Your task to perform on an android device: move an email to a new category in the gmail app Image 0: 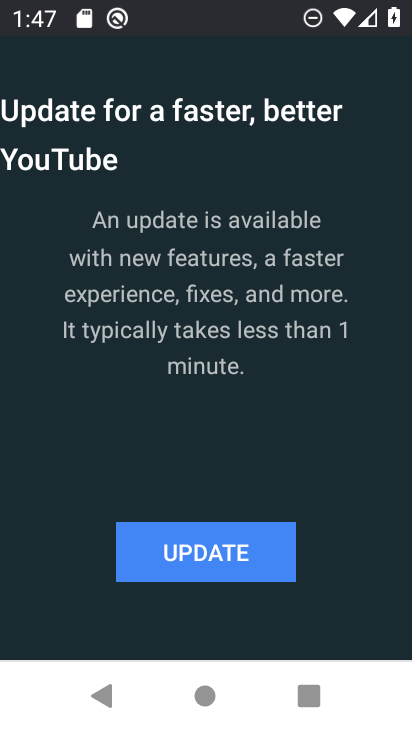
Step 0: press home button
Your task to perform on an android device: move an email to a new category in the gmail app Image 1: 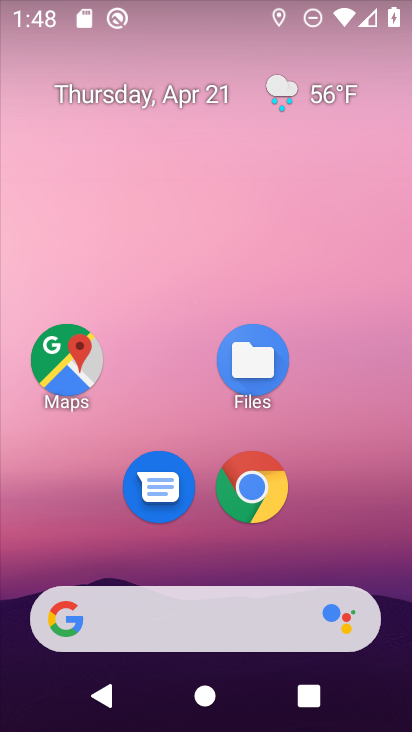
Step 1: drag from (369, 521) to (359, 112)
Your task to perform on an android device: move an email to a new category in the gmail app Image 2: 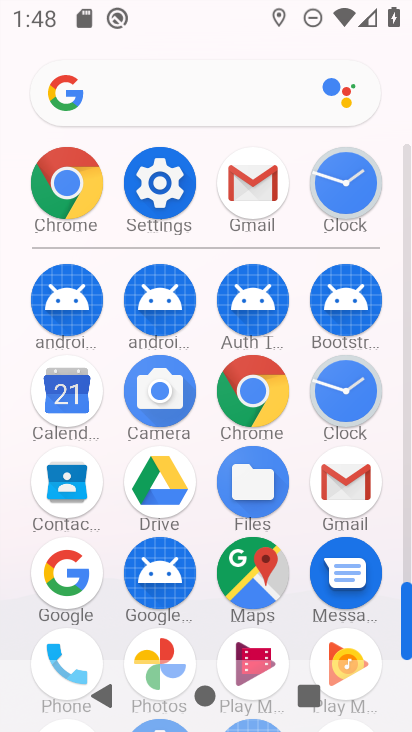
Step 2: click (346, 488)
Your task to perform on an android device: move an email to a new category in the gmail app Image 3: 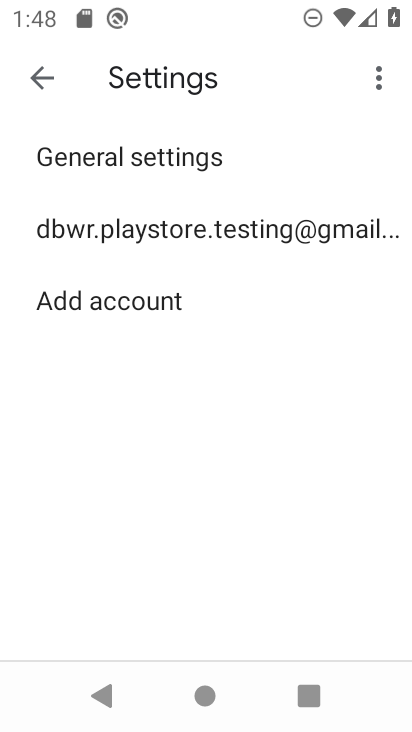
Step 3: click (282, 241)
Your task to perform on an android device: move an email to a new category in the gmail app Image 4: 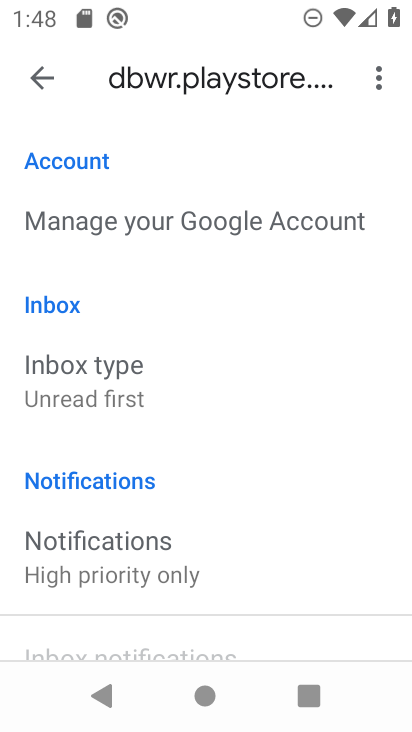
Step 4: click (40, 80)
Your task to perform on an android device: move an email to a new category in the gmail app Image 5: 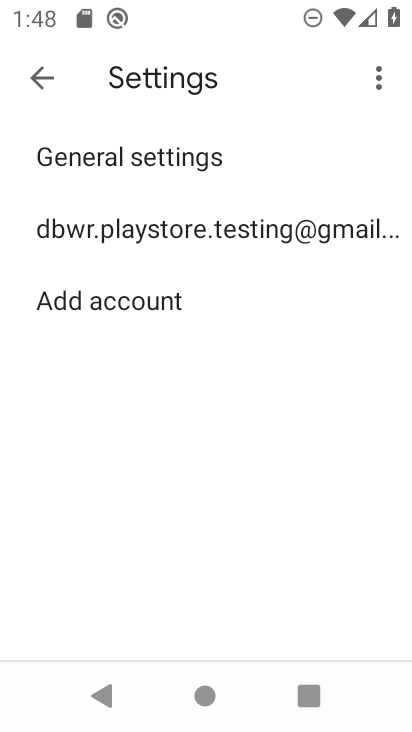
Step 5: click (40, 80)
Your task to perform on an android device: move an email to a new category in the gmail app Image 6: 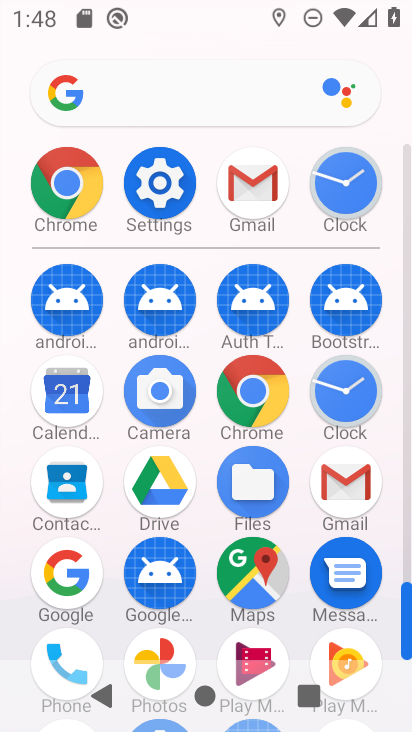
Step 6: click (259, 194)
Your task to perform on an android device: move an email to a new category in the gmail app Image 7: 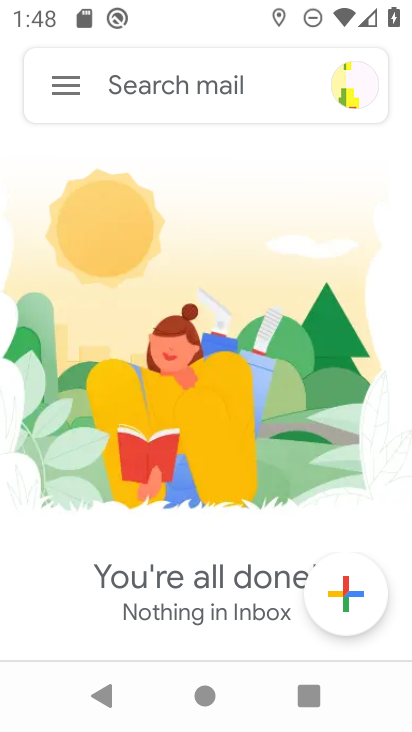
Step 7: click (60, 81)
Your task to perform on an android device: move an email to a new category in the gmail app Image 8: 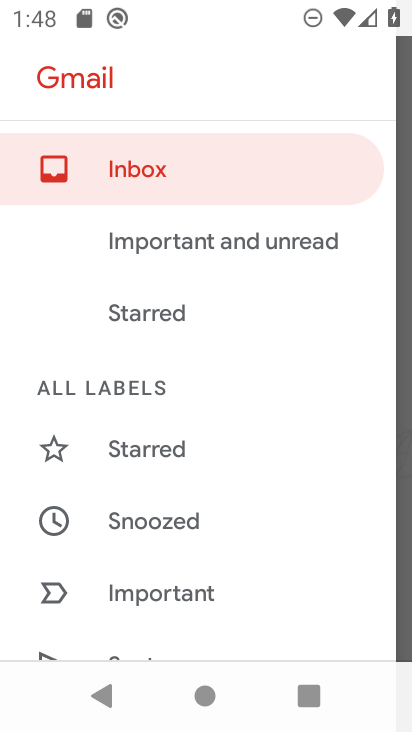
Step 8: drag from (293, 600) to (305, 300)
Your task to perform on an android device: move an email to a new category in the gmail app Image 9: 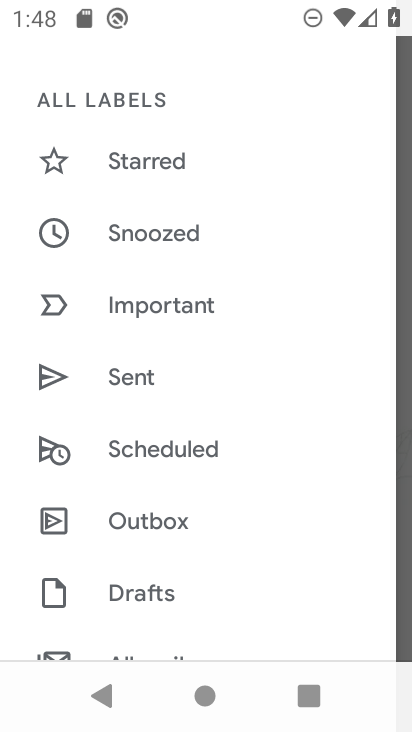
Step 9: drag from (238, 571) to (265, 278)
Your task to perform on an android device: move an email to a new category in the gmail app Image 10: 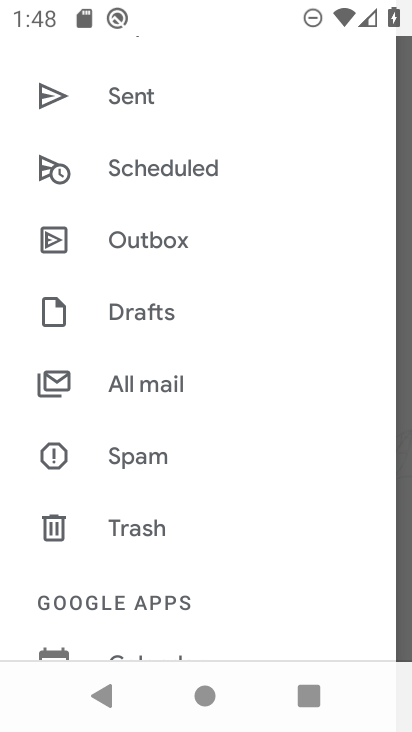
Step 10: click (156, 399)
Your task to perform on an android device: move an email to a new category in the gmail app Image 11: 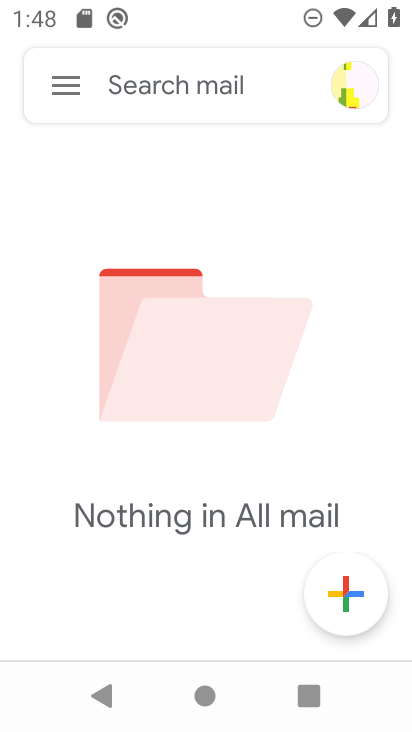
Step 11: task complete